Your task to perform on an android device: Is it going to rain today? Image 0: 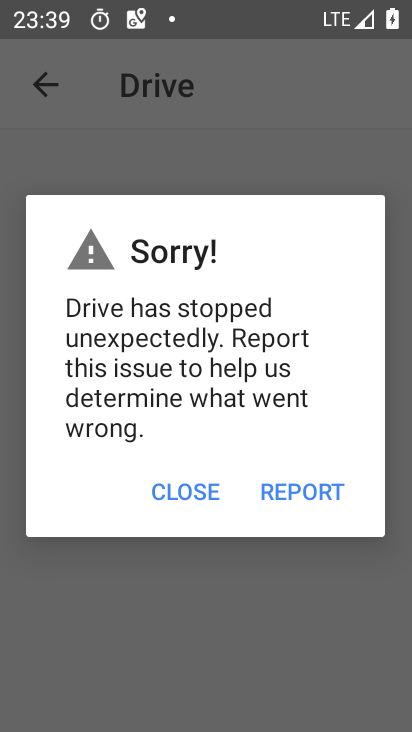
Step 0: press home button
Your task to perform on an android device: Is it going to rain today? Image 1: 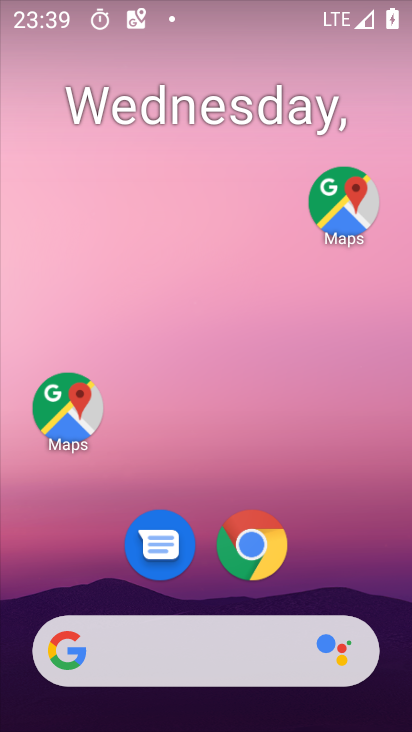
Step 1: click (190, 639)
Your task to perform on an android device: Is it going to rain today? Image 2: 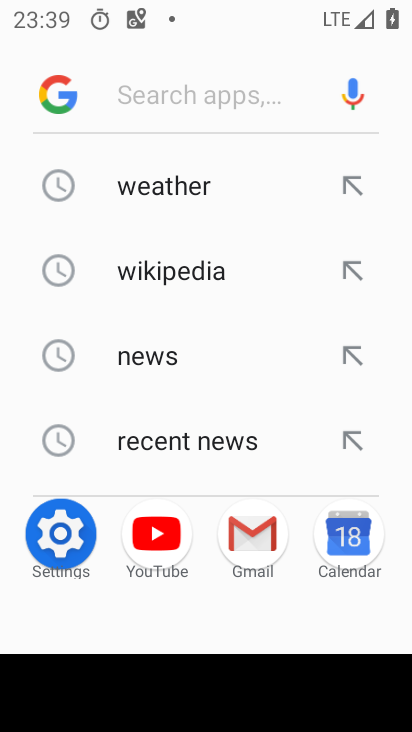
Step 2: type "is it going to rain today"
Your task to perform on an android device: Is it going to rain today? Image 3: 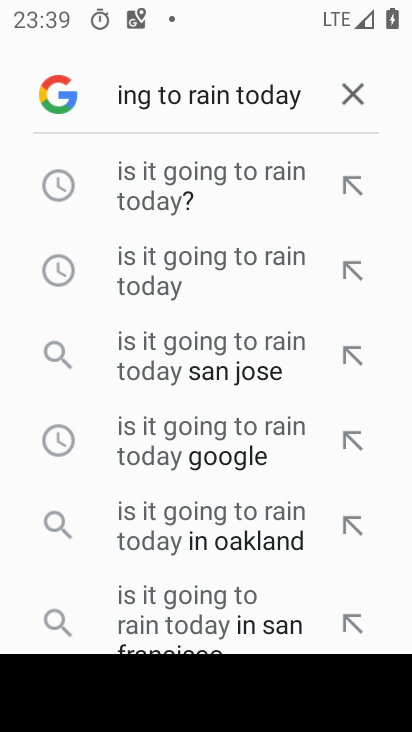
Step 3: click (232, 181)
Your task to perform on an android device: Is it going to rain today? Image 4: 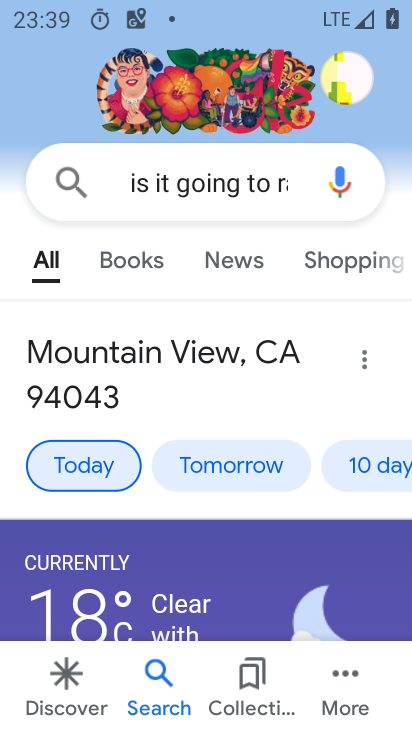
Step 4: task complete